Your task to perform on an android device: Go to display settings Image 0: 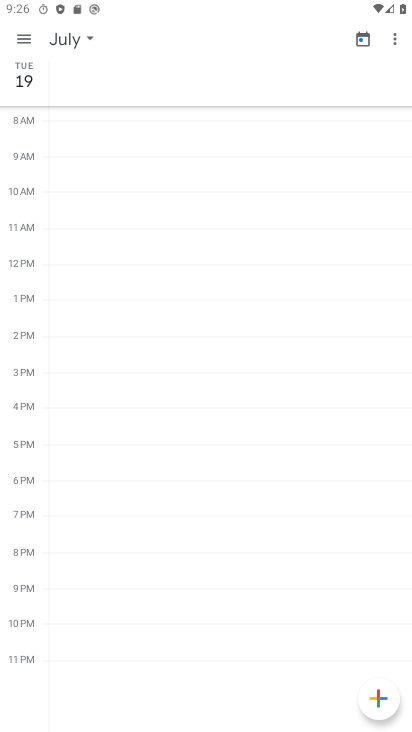
Step 0: press home button
Your task to perform on an android device: Go to display settings Image 1: 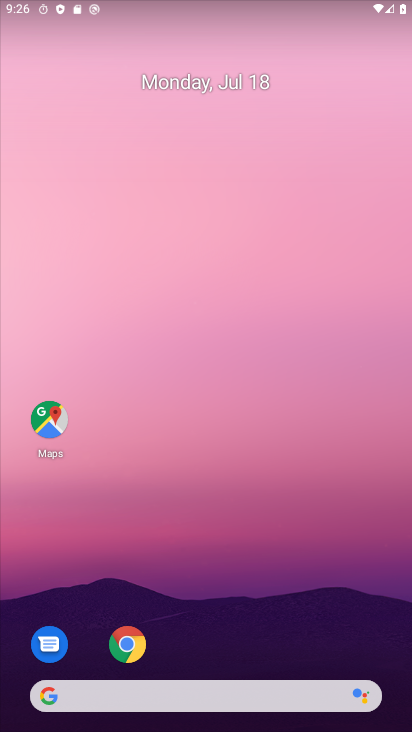
Step 1: drag from (207, 649) to (247, 27)
Your task to perform on an android device: Go to display settings Image 2: 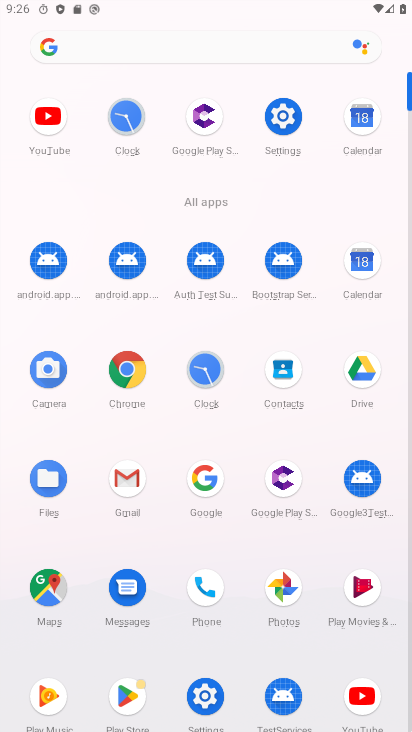
Step 2: click (276, 109)
Your task to perform on an android device: Go to display settings Image 3: 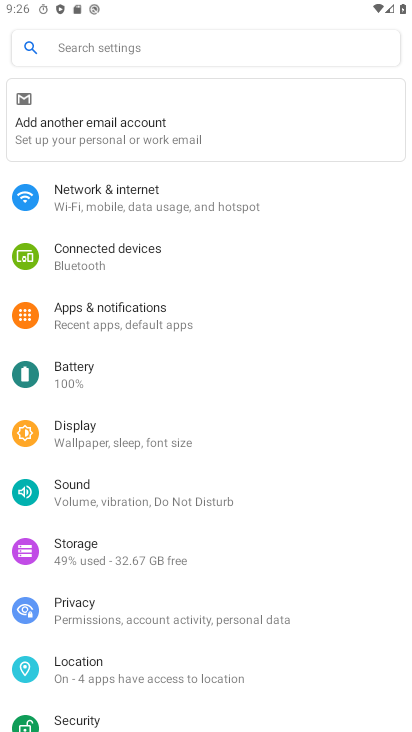
Step 3: click (116, 424)
Your task to perform on an android device: Go to display settings Image 4: 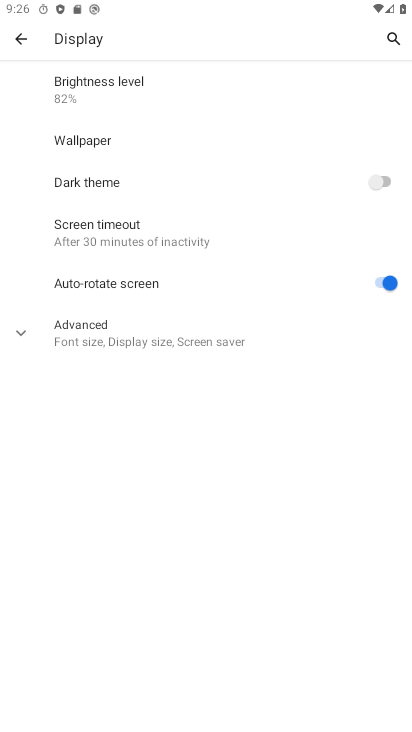
Step 4: click (22, 327)
Your task to perform on an android device: Go to display settings Image 5: 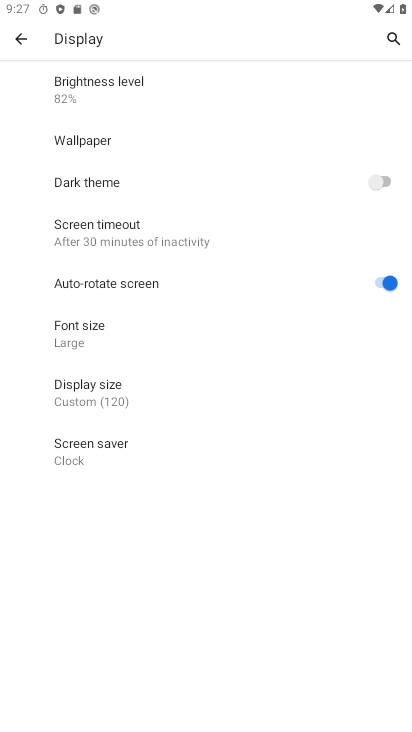
Step 5: task complete